Your task to perform on an android device: change keyboard looks Image 0: 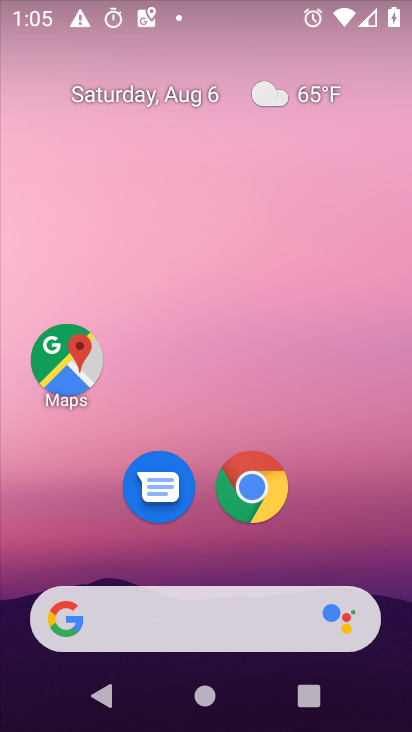
Step 0: drag from (237, 519) to (308, 18)
Your task to perform on an android device: change keyboard looks Image 1: 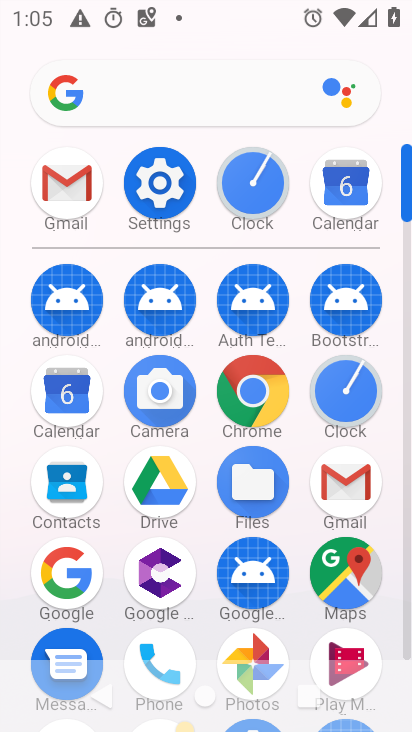
Step 1: click (180, 179)
Your task to perform on an android device: change keyboard looks Image 2: 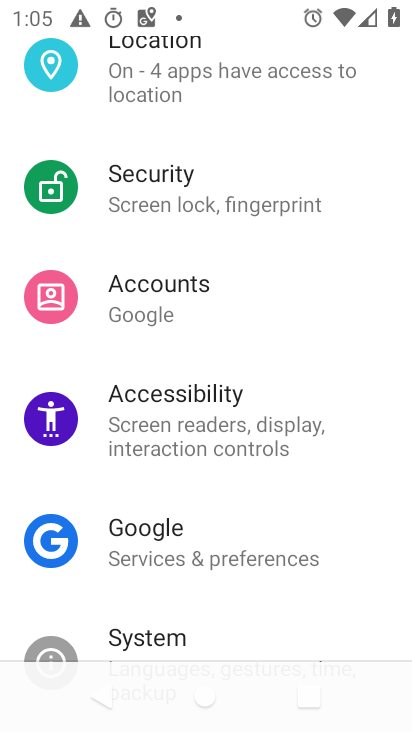
Step 2: drag from (223, 614) to (309, 3)
Your task to perform on an android device: change keyboard looks Image 3: 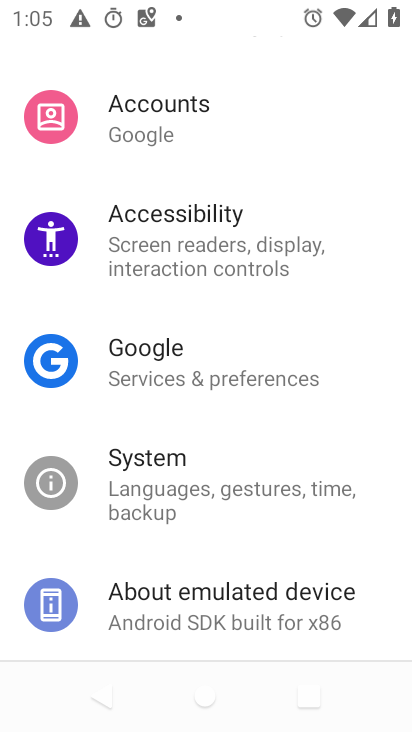
Step 3: click (188, 474)
Your task to perform on an android device: change keyboard looks Image 4: 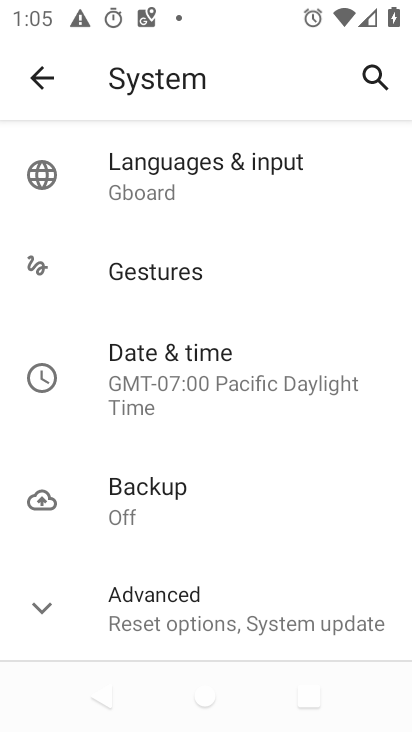
Step 4: drag from (185, 612) to (265, 38)
Your task to perform on an android device: change keyboard looks Image 5: 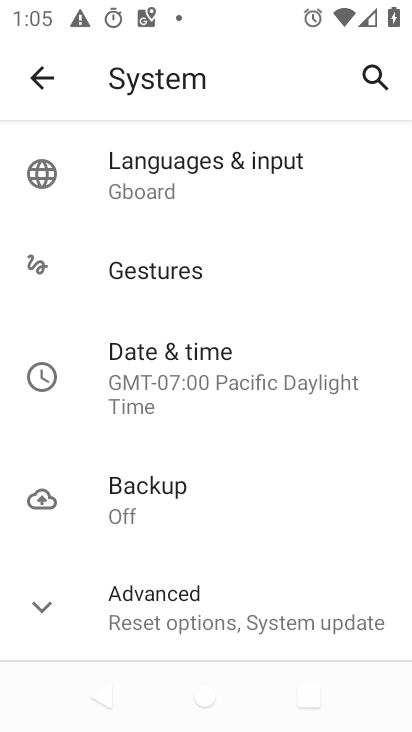
Step 5: click (171, 602)
Your task to perform on an android device: change keyboard looks Image 6: 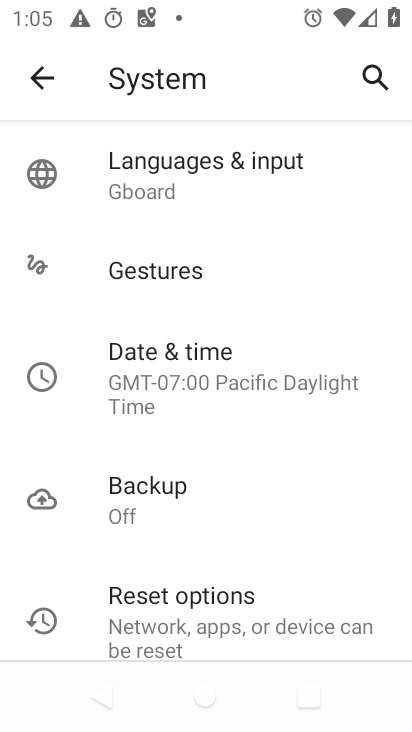
Step 6: drag from (190, 587) to (320, 58)
Your task to perform on an android device: change keyboard looks Image 7: 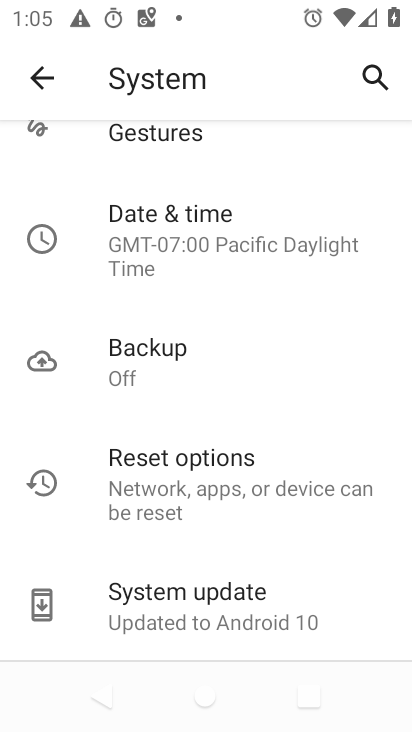
Step 7: drag from (259, 186) to (192, 678)
Your task to perform on an android device: change keyboard looks Image 8: 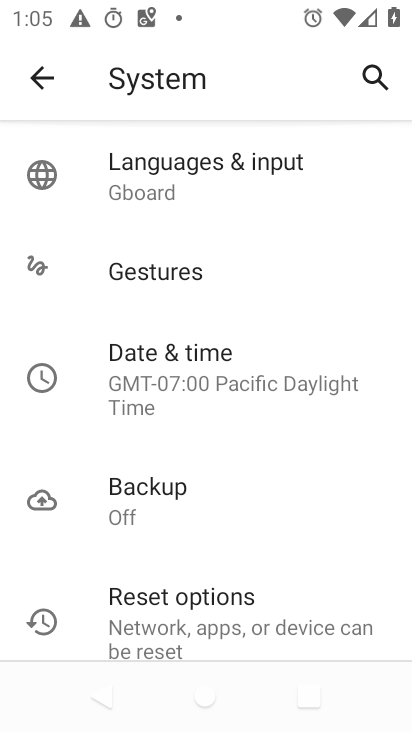
Step 8: click (167, 173)
Your task to perform on an android device: change keyboard looks Image 9: 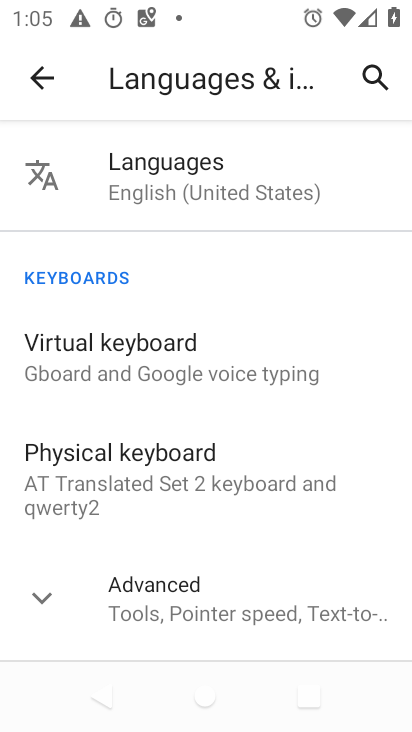
Step 9: click (112, 351)
Your task to perform on an android device: change keyboard looks Image 10: 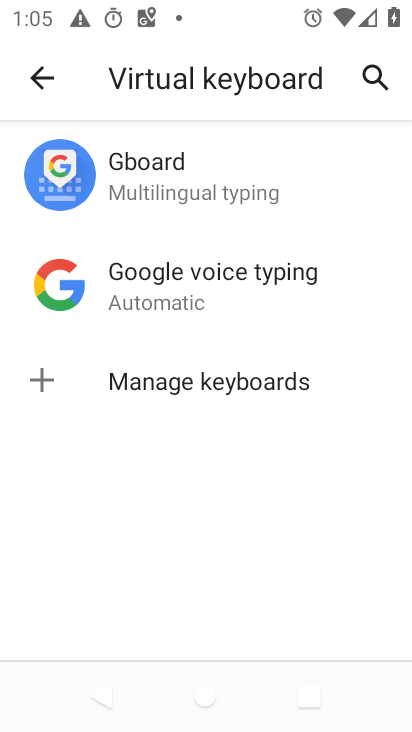
Step 10: click (152, 172)
Your task to perform on an android device: change keyboard looks Image 11: 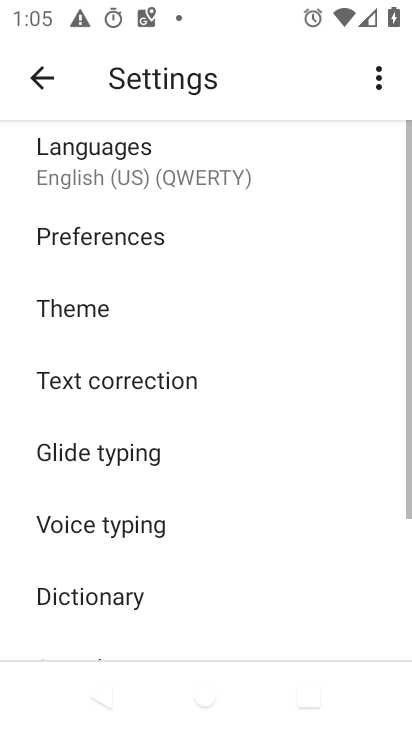
Step 11: click (58, 295)
Your task to perform on an android device: change keyboard looks Image 12: 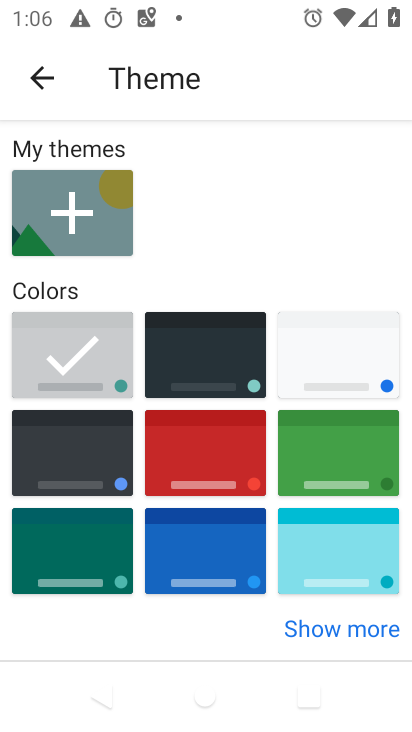
Step 12: click (186, 457)
Your task to perform on an android device: change keyboard looks Image 13: 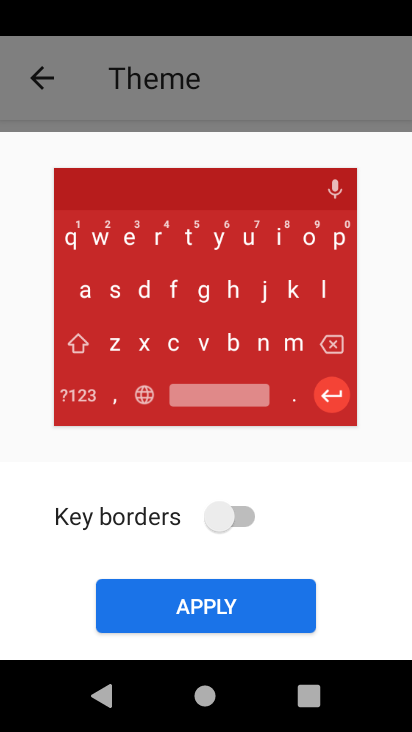
Step 13: click (186, 619)
Your task to perform on an android device: change keyboard looks Image 14: 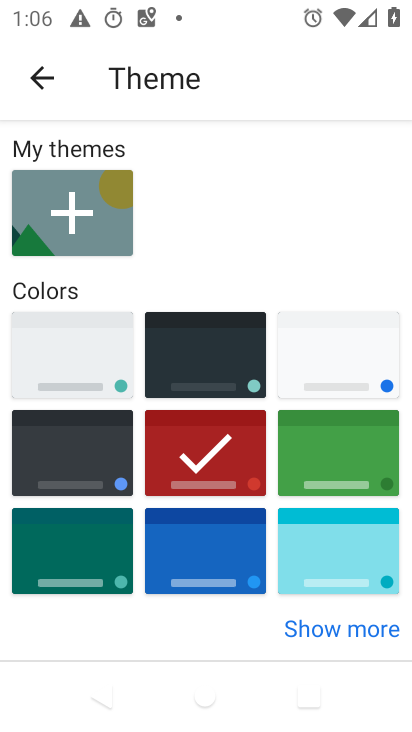
Step 14: task complete